Your task to perform on an android device: Go to display settings Image 0: 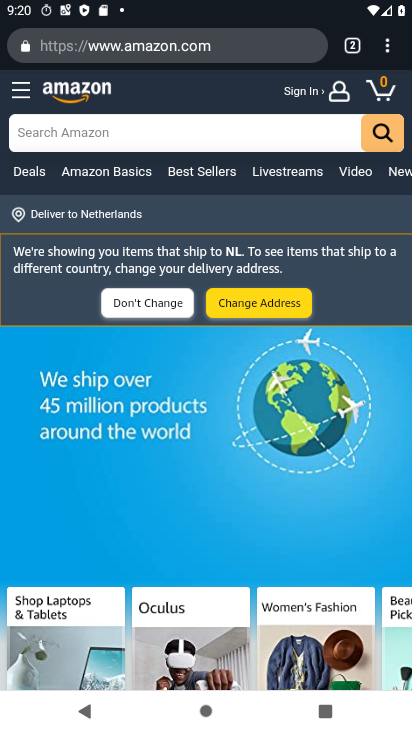
Step 0: press home button
Your task to perform on an android device: Go to display settings Image 1: 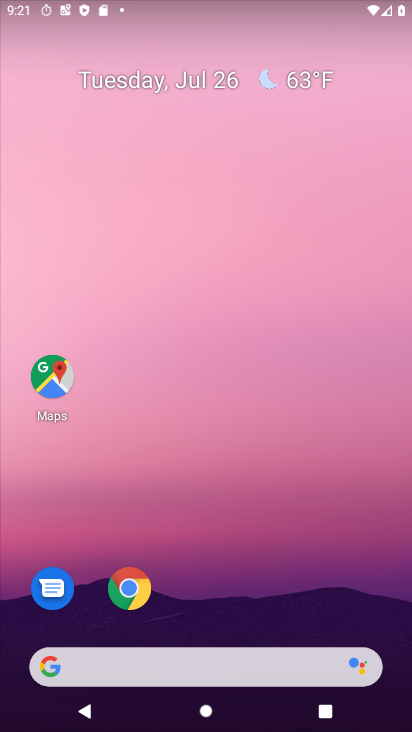
Step 1: drag from (250, 637) to (268, 18)
Your task to perform on an android device: Go to display settings Image 2: 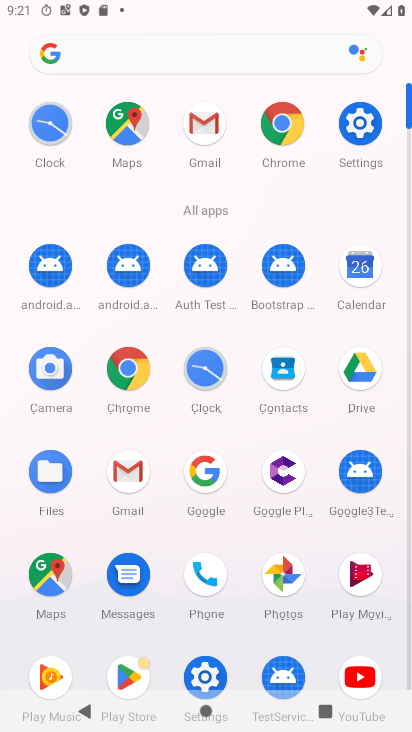
Step 2: click (339, 109)
Your task to perform on an android device: Go to display settings Image 3: 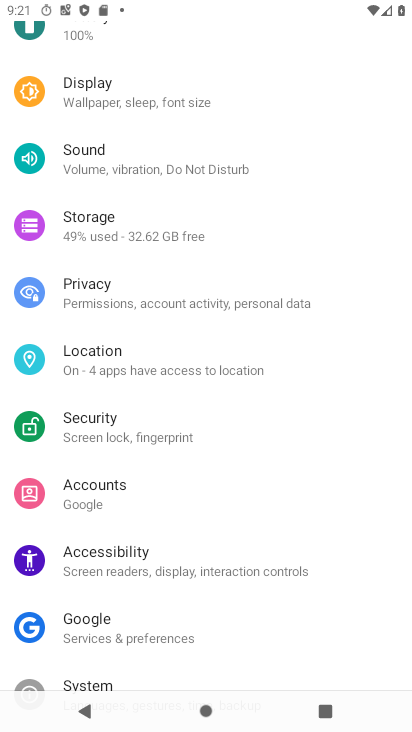
Step 3: click (282, 109)
Your task to perform on an android device: Go to display settings Image 4: 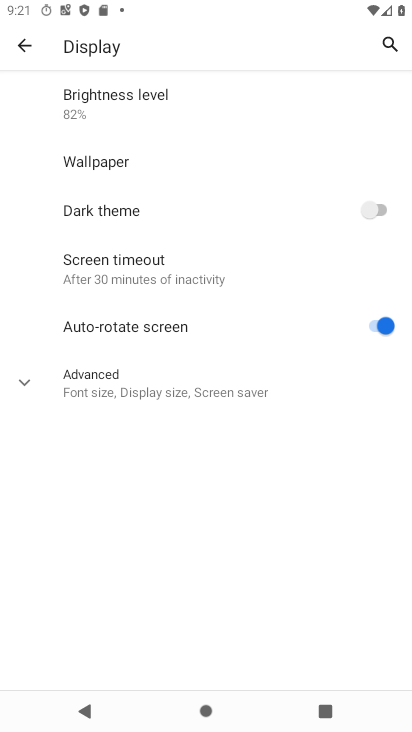
Step 4: task complete